Your task to perform on an android device: check android version Image 0: 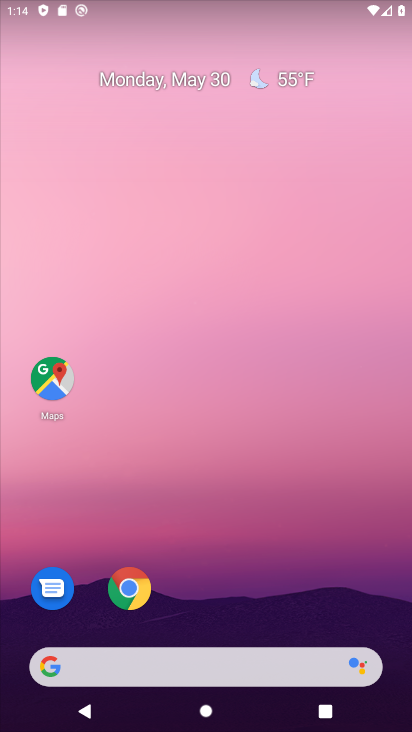
Step 0: drag from (377, 610) to (206, 93)
Your task to perform on an android device: check android version Image 1: 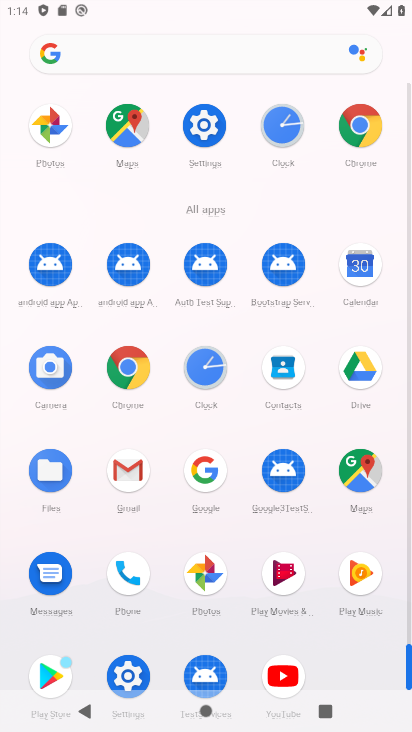
Step 1: click (130, 675)
Your task to perform on an android device: check android version Image 2: 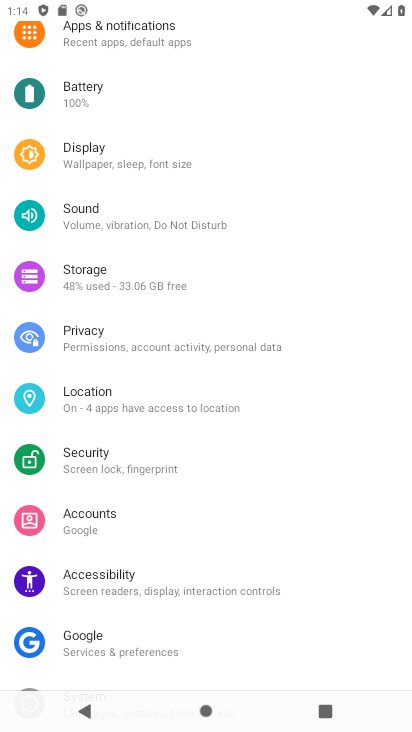
Step 2: drag from (245, 592) to (213, 337)
Your task to perform on an android device: check android version Image 3: 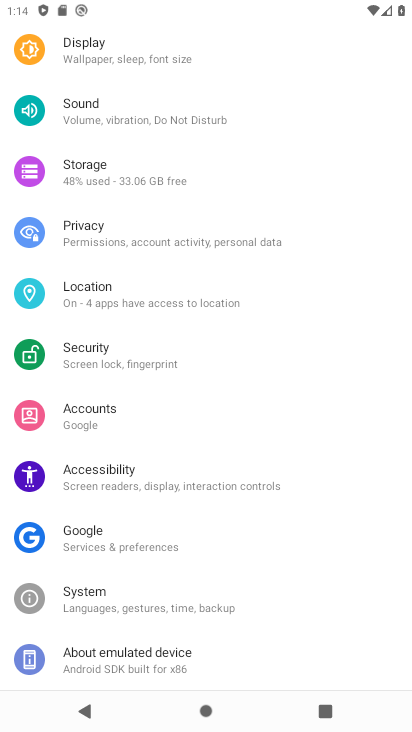
Step 3: click (95, 651)
Your task to perform on an android device: check android version Image 4: 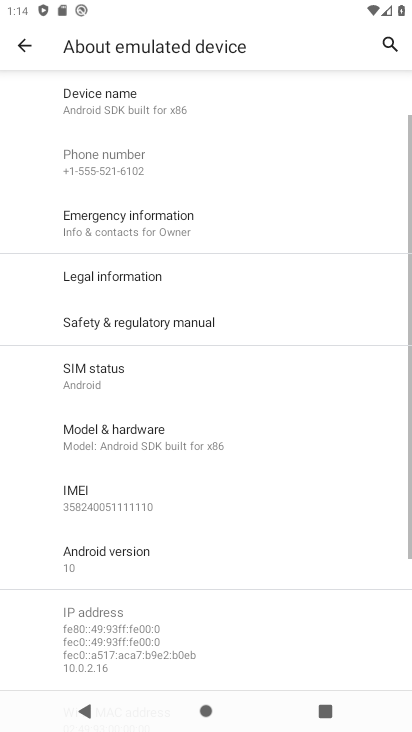
Step 4: click (104, 557)
Your task to perform on an android device: check android version Image 5: 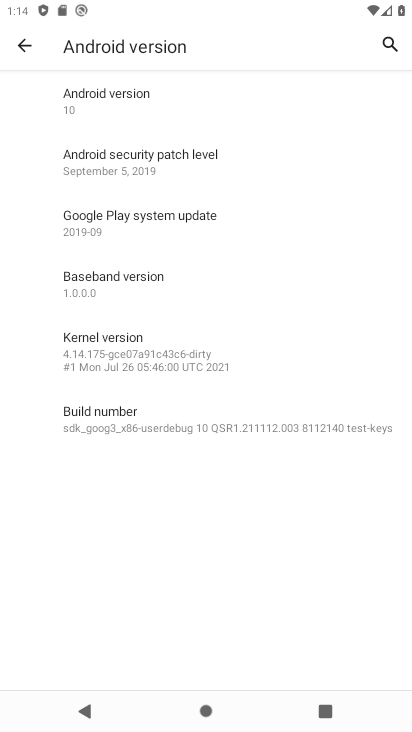
Step 5: click (118, 92)
Your task to perform on an android device: check android version Image 6: 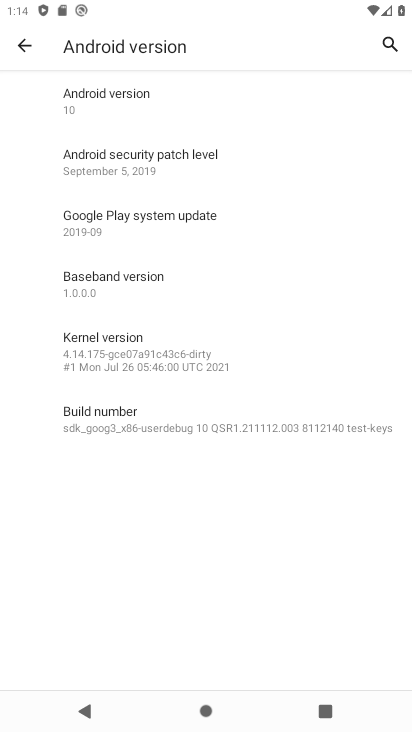
Step 6: task complete